Your task to perform on an android device: Open the Play Movies app and select the watchlist tab. Image 0: 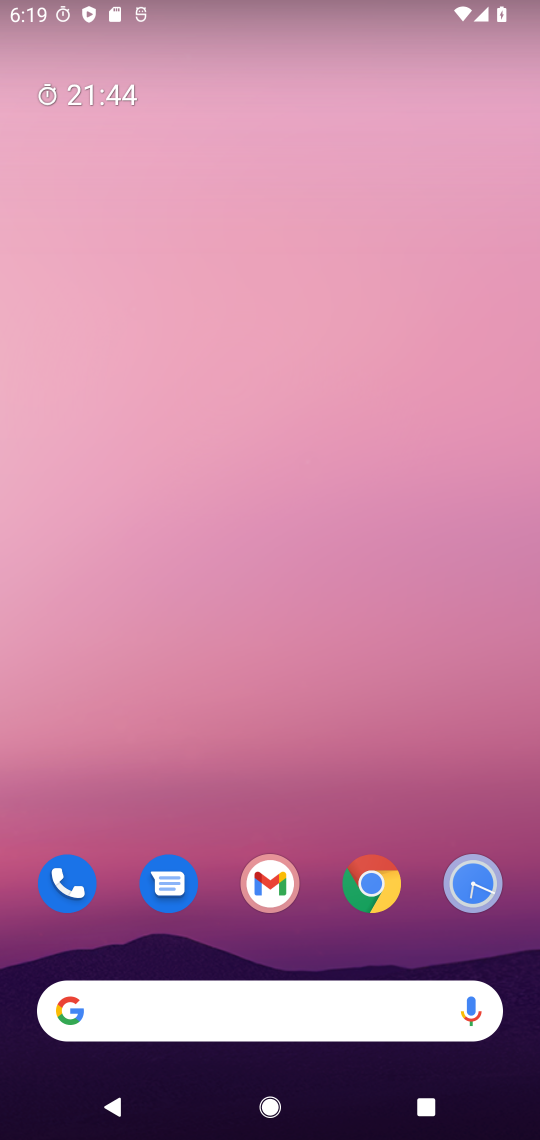
Step 0: drag from (312, 723) to (312, 258)
Your task to perform on an android device: Open the Play Movies app and select the watchlist tab. Image 1: 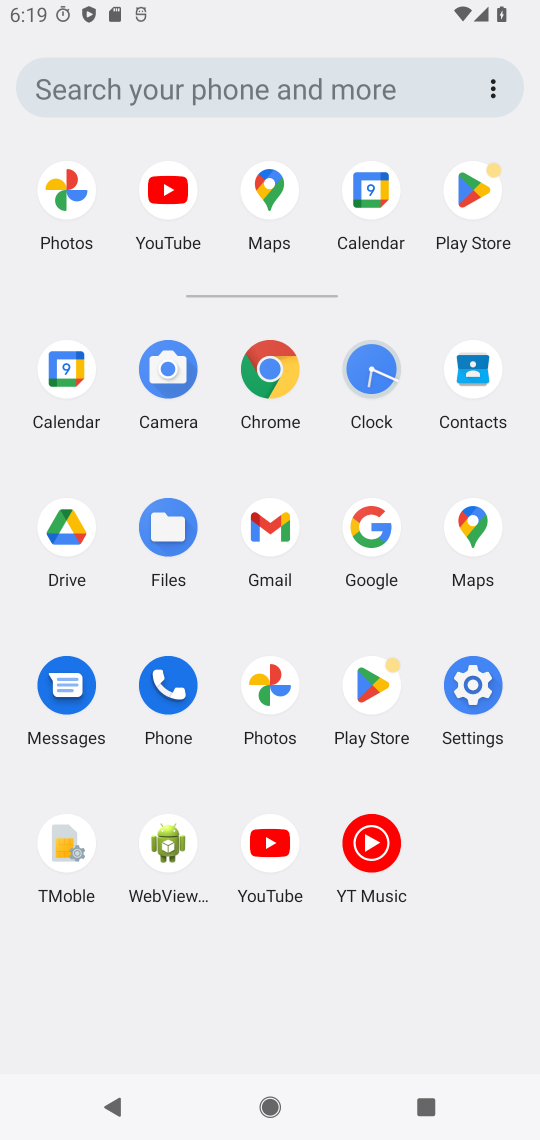
Step 1: task complete